Your task to perform on an android device: set default search engine in the chrome app Image 0: 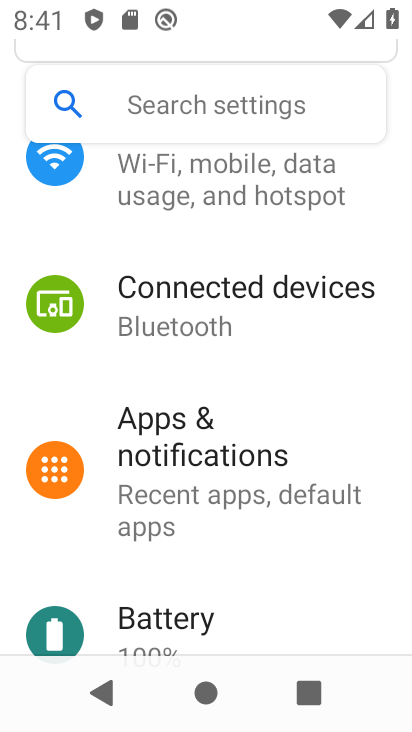
Step 0: press home button
Your task to perform on an android device: set default search engine in the chrome app Image 1: 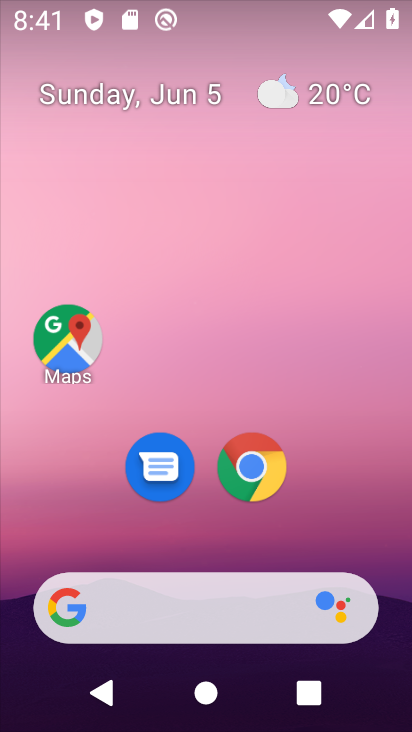
Step 1: click (251, 472)
Your task to perform on an android device: set default search engine in the chrome app Image 2: 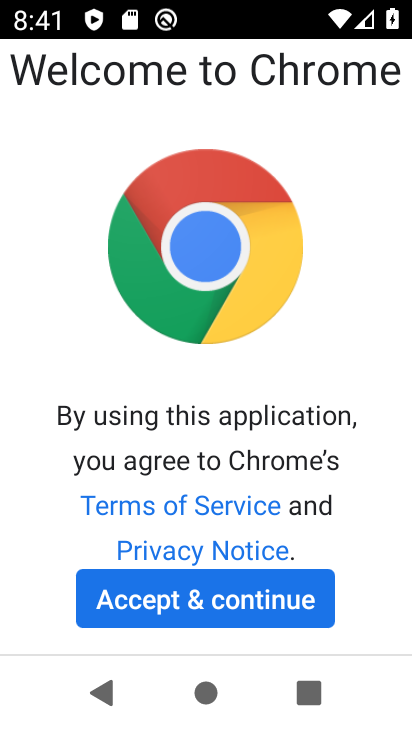
Step 2: click (216, 596)
Your task to perform on an android device: set default search engine in the chrome app Image 3: 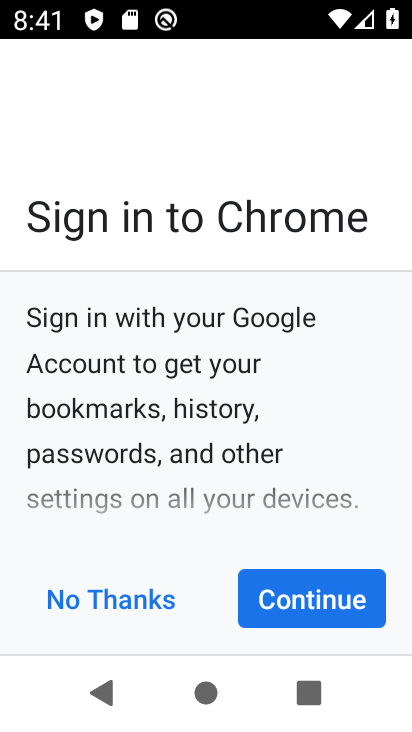
Step 3: click (258, 603)
Your task to perform on an android device: set default search engine in the chrome app Image 4: 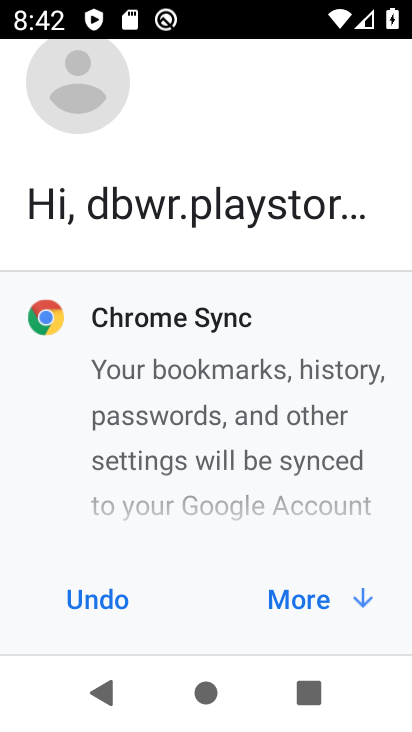
Step 4: click (284, 597)
Your task to perform on an android device: set default search engine in the chrome app Image 5: 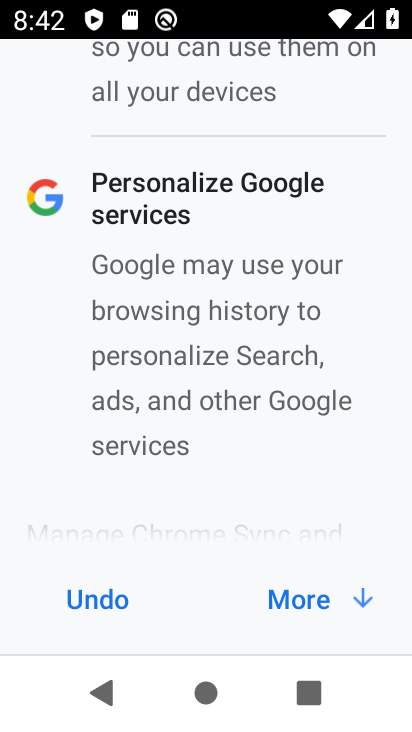
Step 5: click (285, 596)
Your task to perform on an android device: set default search engine in the chrome app Image 6: 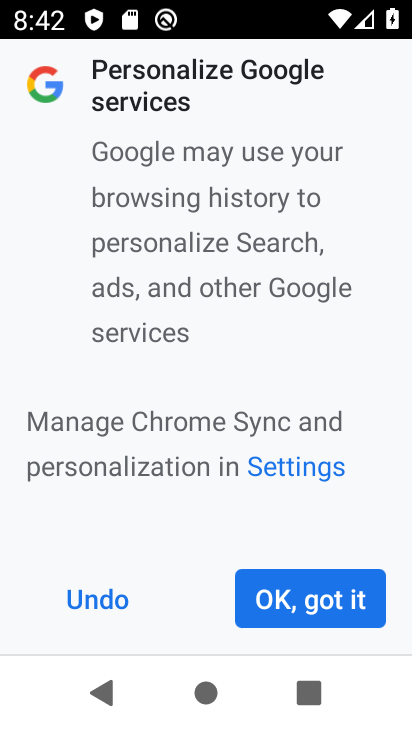
Step 6: click (285, 596)
Your task to perform on an android device: set default search engine in the chrome app Image 7: 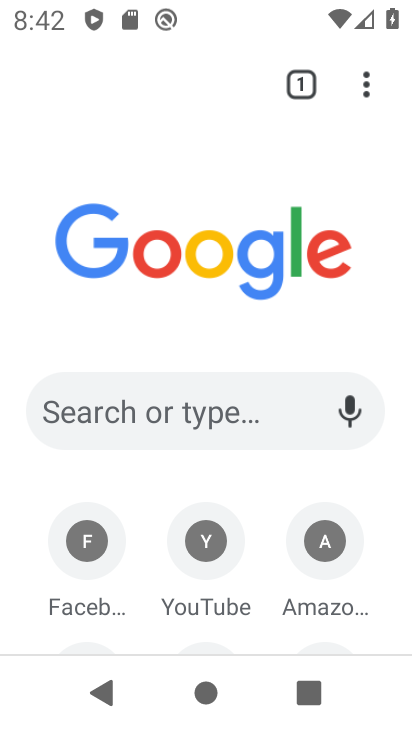
Step 7: click (365, 91)
Your task to perform on an android device: set default search engine in the chrome app Image 8: 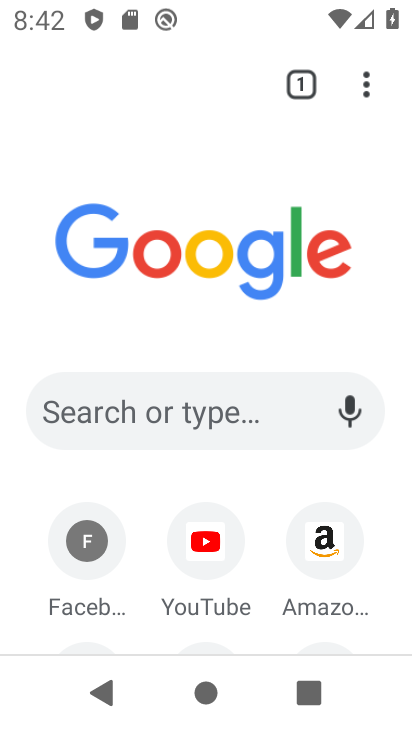
Step 8: click (358, 87)
Your task to perform on an android device: set default search engine in the chrome app Image 9: 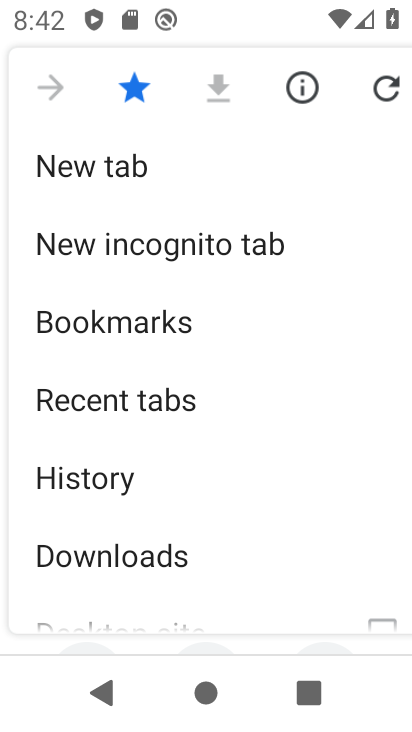
Step 9: drag from (88, 586) to (87, 205)
Your task to perform on an android device: set default search engine in the chrome app Image 10: 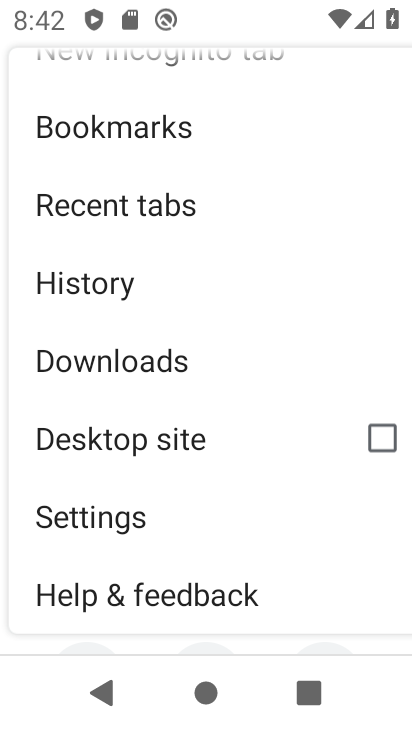
Step 10: click (107, 530)
Your task to perform on an android device: set default search engine in the chrome app Image 11: 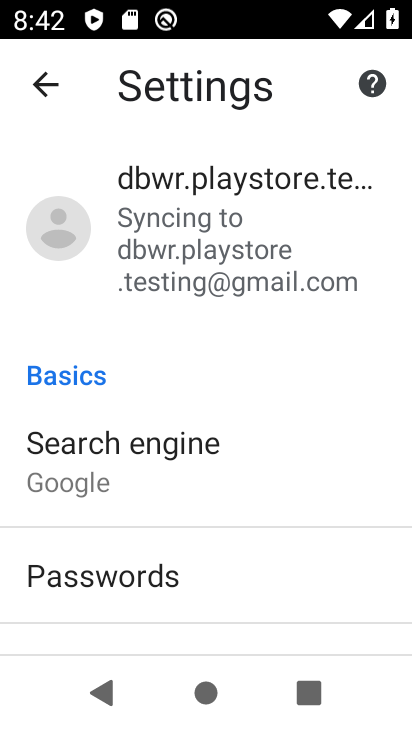
Step 11: click (90, 483)
Your task to perform on an android device: set default search engine in the chrome app Image 12: 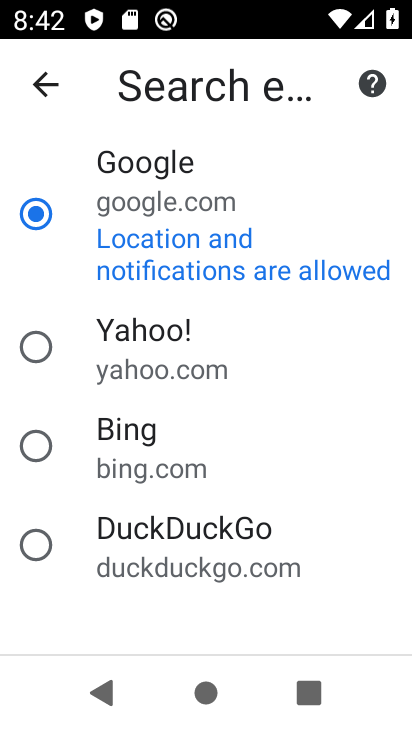
Step 12: click (141, 369)
Your task to perform on an android device: set default search engine in the chrome app Image 13: 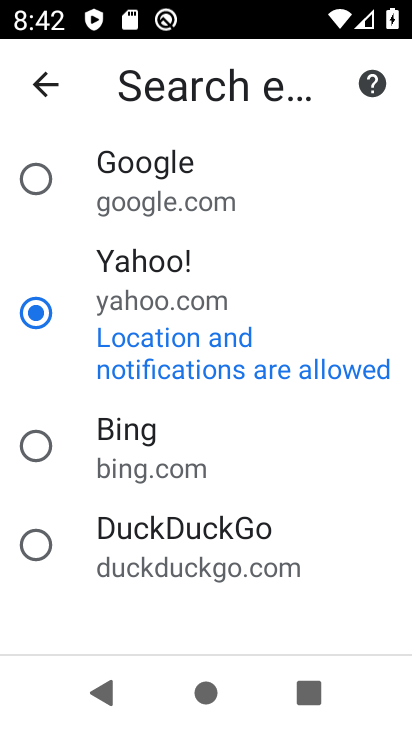
Step 13: task complete